Your task to perform on an android device: set the stopwatch Image 0: 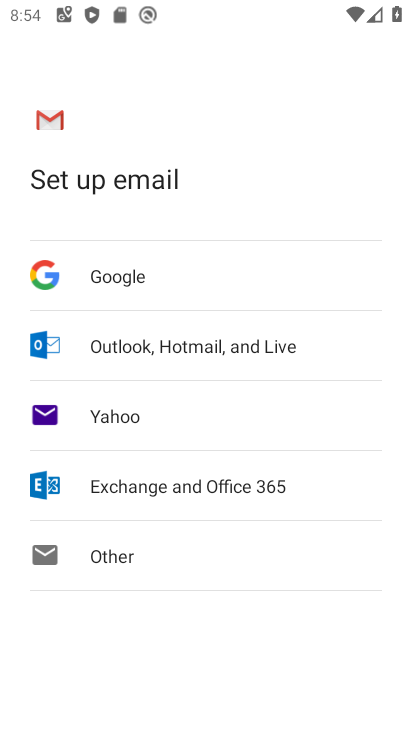
Step 0: press home button
Your task to perform on an android device: set the stopwatch Image 1: 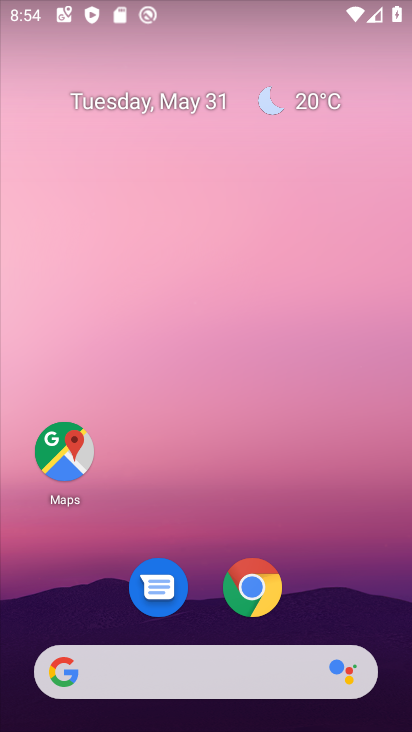
Step 1: drag from (264, 343) to (275, 46)
Your task to perform on an android device: set the stopwatch Image 2: 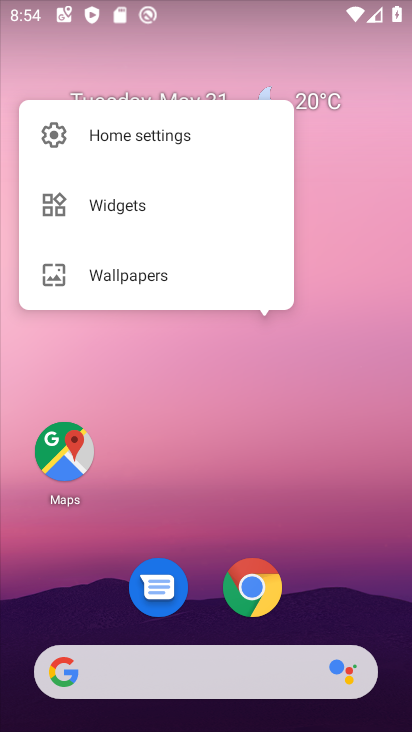
Step 2: click (248, 11)
Your task to perform on an android device: set the stopwatch Image 3: 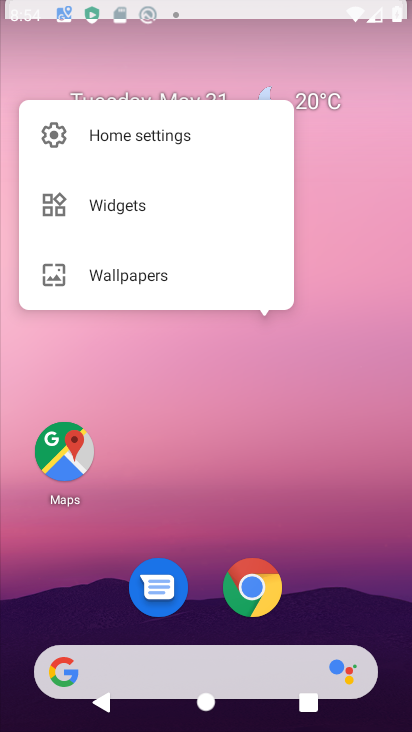
Step 3: drag from (215, 577) to (204, 150)
Your task to perform on an android device: set the stopwatch Image 4: 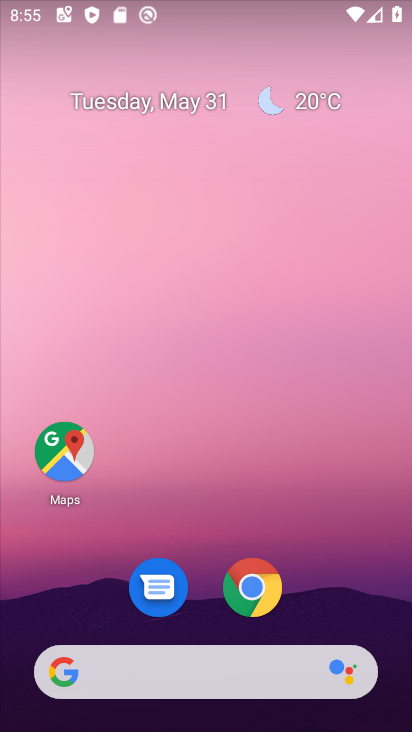
Step 4: drag from (201, 633) to (236, 71)
Your task to perform on an android device: set the stopwatch Image 5: 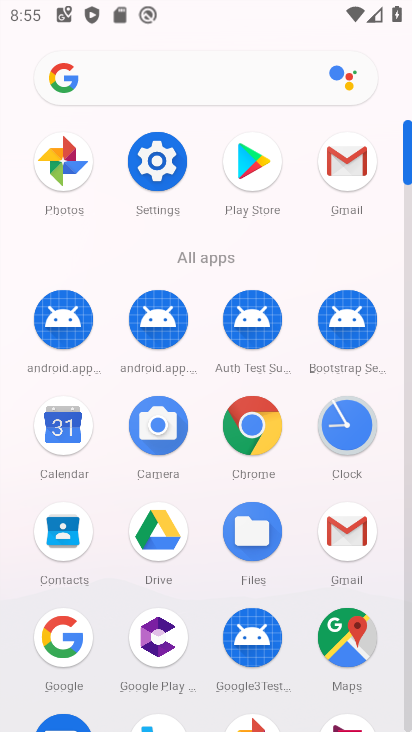
Step 5: click (344, 414)
Your task to perform on an android device: set the stopwatch Image 6: 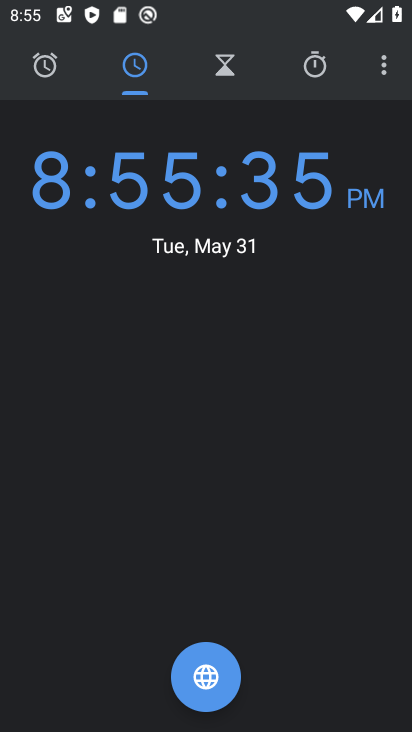
Step 6: click (317, 64)
Your task to perform on an android device: set the stopwatch Image 7: 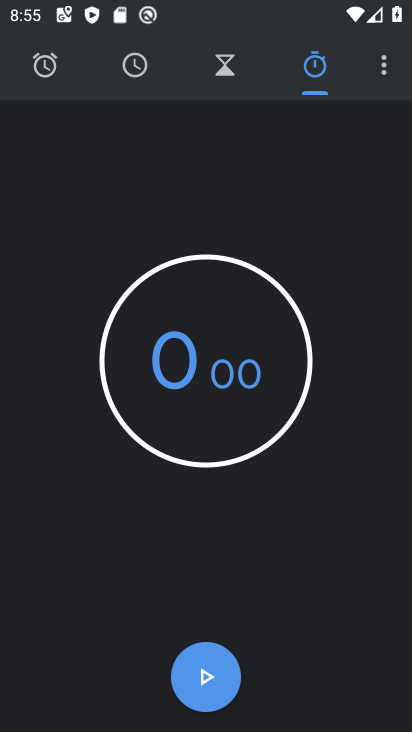
Step 7: click (208, 660)
Your task to perform on an android device: set the stopwatch Image 8: 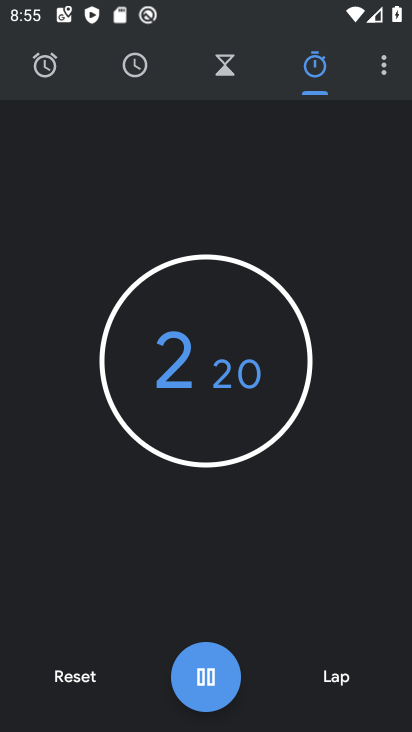
Step 8: task complete